Your task to perform on an android device: Open the Play Movies app and select the watchlist tab. Image 0: 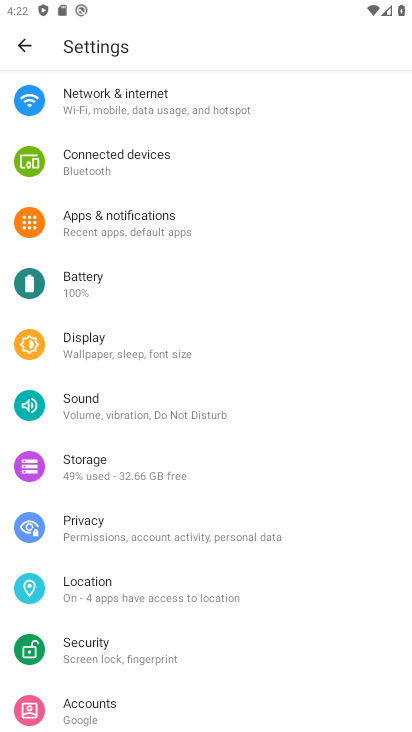
Step 0: press home button
Your task to perform on an android device: Open the Play Movies app and select the watchlist tab. Image 1: 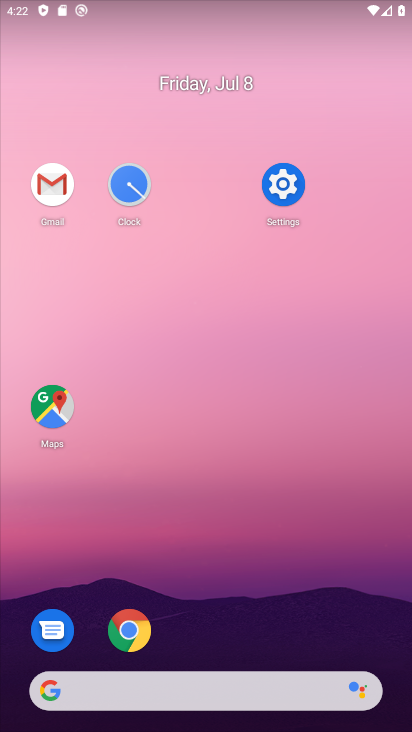
Step 1: drag from (376, 608) to (409, 227)
Your task to perform on an android device: Open the Play Movies app and select the watchlist tab. Image 2: 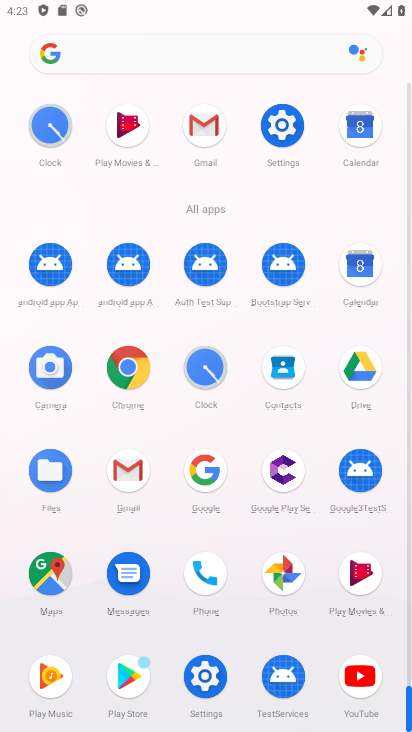
Step 2: click (123, 133)
Your task to perform on an android device: Open the Play Movies app and select the watchlist tab. Image 3: 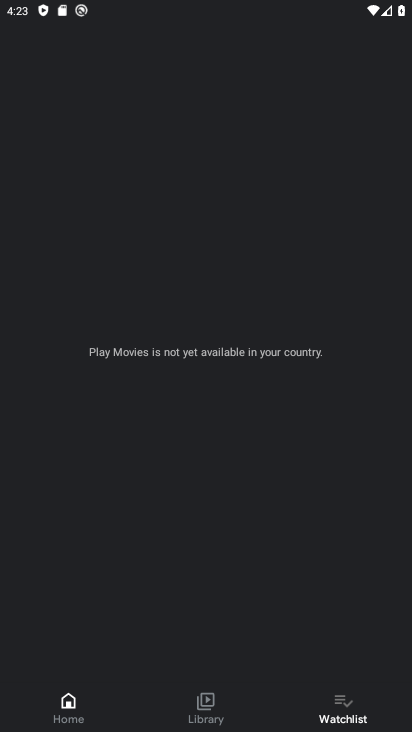
Step 3: click (350, 700)
Your task to perform on an android device: Open the Play Movies app and select the watchlist tab. Image 4: 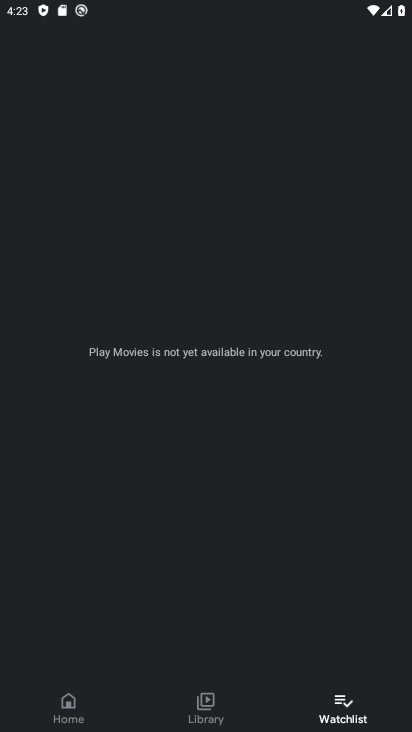
Step 4: task complete